Your task to perform on an android device: toggle pop-ups in chrome Image 0: 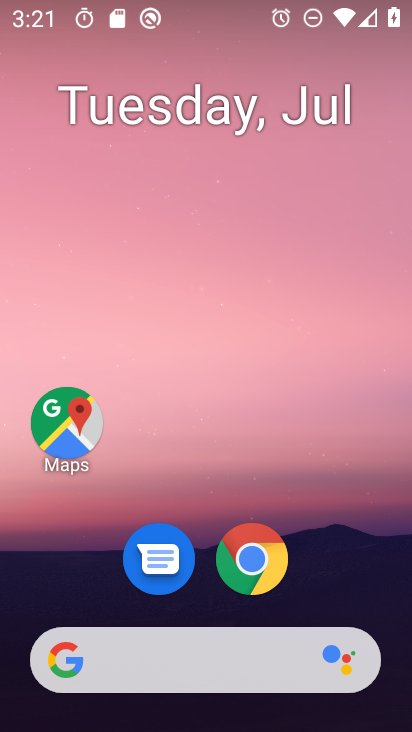
Step 0: drag from (363, 582) to (365, 146)
Your task to perform on an android device: toggle pop-ups in chrome Image 1: 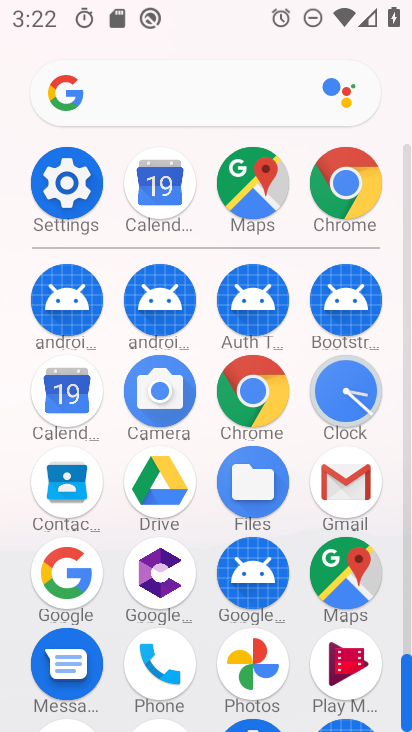
Step 1: click (271, 387)
Your task to perform on an android device: toggle pop-ups in chrome Image 2: 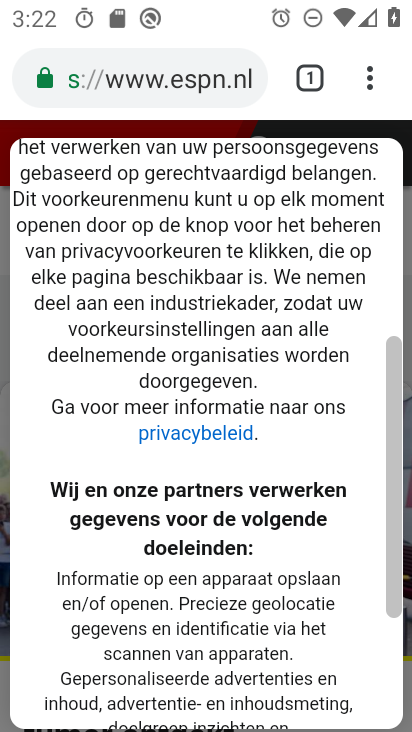
Step 2: click (370, 80)
Your task to perform on an android device: toggle pop-ups in chrome Image 3: 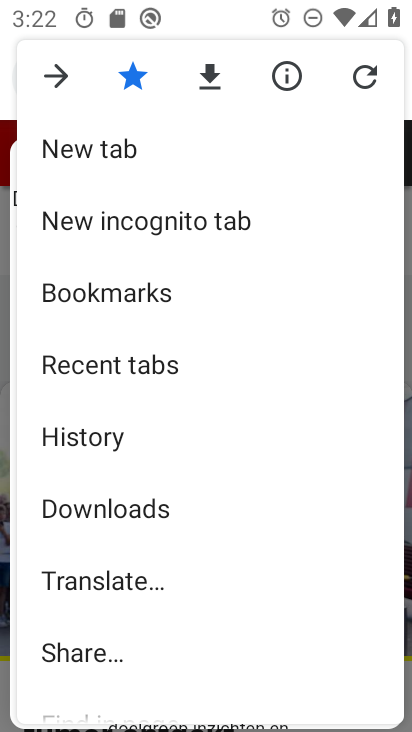
Step 3: drag from (331, 450) to (345, 376)
Your task to perform on an android device: toggle pop-ups in chrome Image 4: 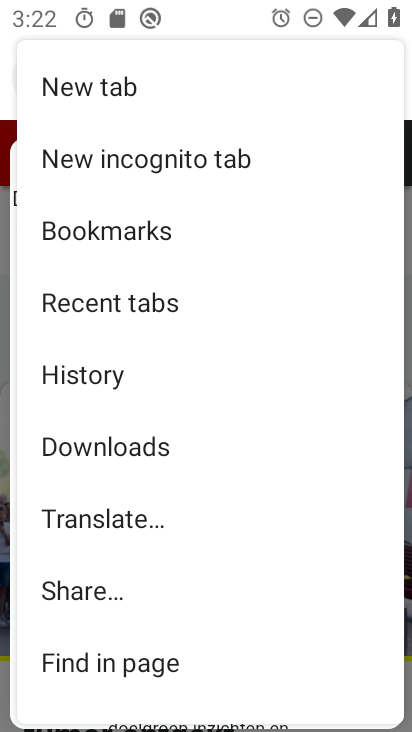
Step 4: drag from (345, 501) to (348, 428)
Your task to perform on an android device: toggle pop-ups in chrome Image 5: 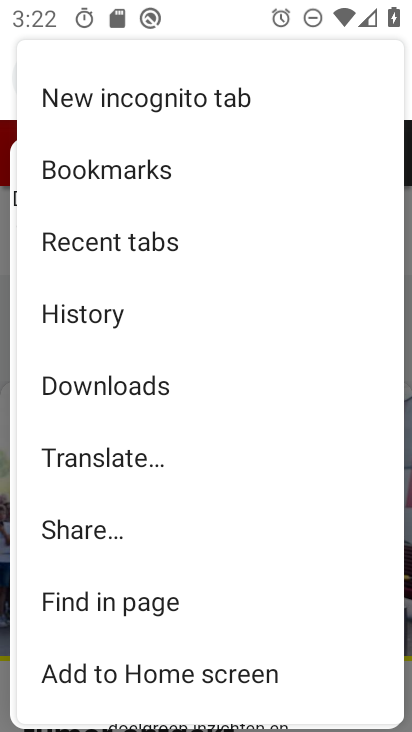
Step 5: drag from (322, 519) to (322, 431)
Your task to perform on an android device: toggle pop-ups in chrome Image 6: 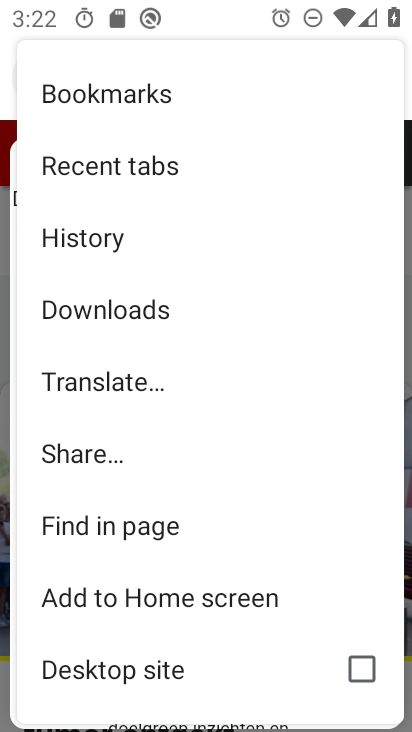
Step 6: drag from (317, 483) to (323, 391)
Your task to perform on an android device: toggle pop-ups in chrome Image 7: 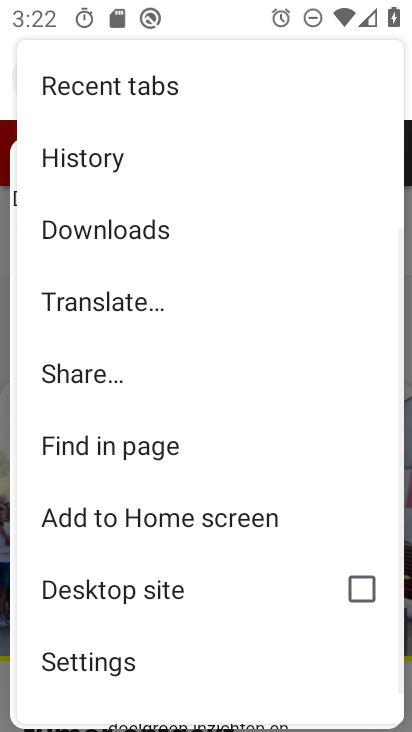
Step 7: drag from (315, 466) to (322, 375)
Your task to perform on an android device: toggle pop-ups in chrome Image 8: 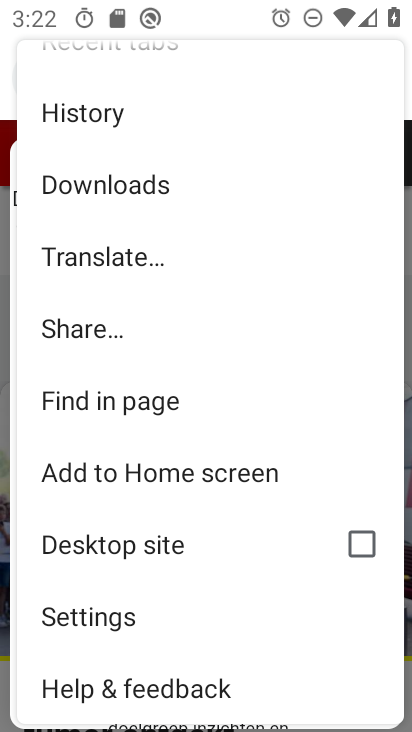
Step 8: click (246, 610)
Your task to perform on an android device: toggle pop-ups in chrome Image 9: 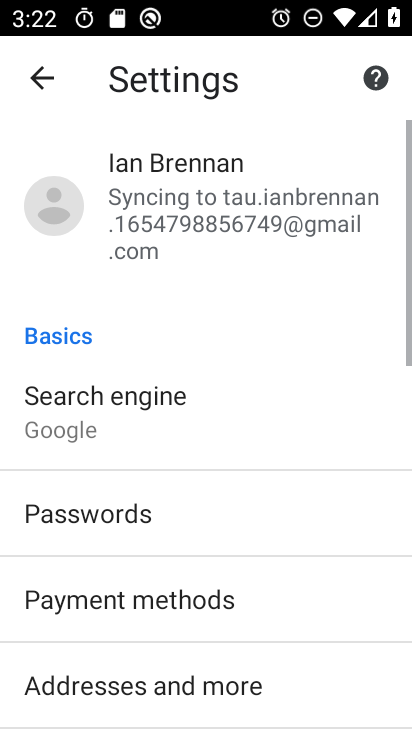
Step 9: drag from (321, 581) to (333, 482)
Your task to perform on an android device: toggle pop-ups in chrome Image 10: 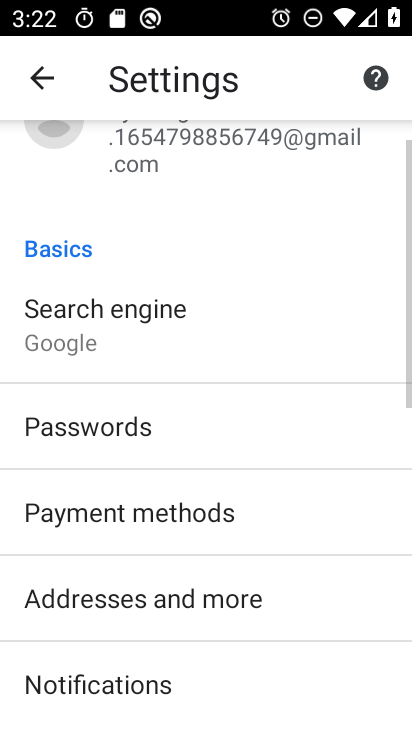
Step 10: drag from (332, 560) to (361, 390)
Your task to perform on an android device: toggle pop-ups in chrome Image 11: 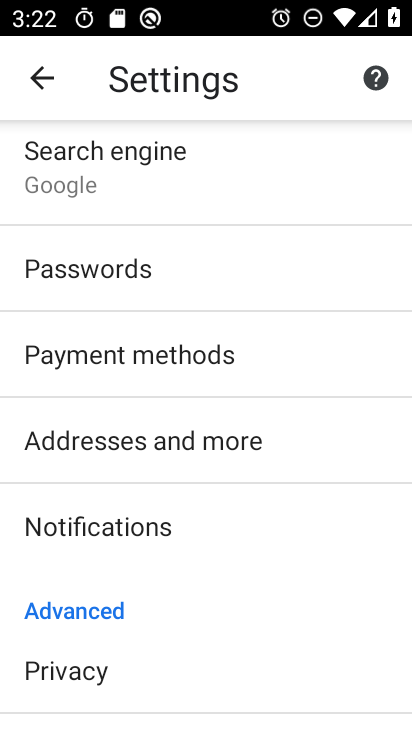
Step 11: drag from (356, 464) to (399, 166)
Your task to perform on an android device: toggle pop-ups in chrome Image 12: 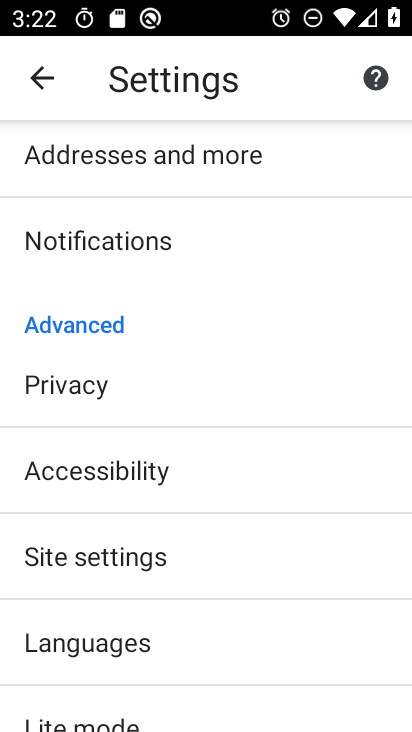
Step 12: drag from (340, 469) to (357, 252)
Your task to perform on an android device: toggle pop-ups in chrome Image 13: 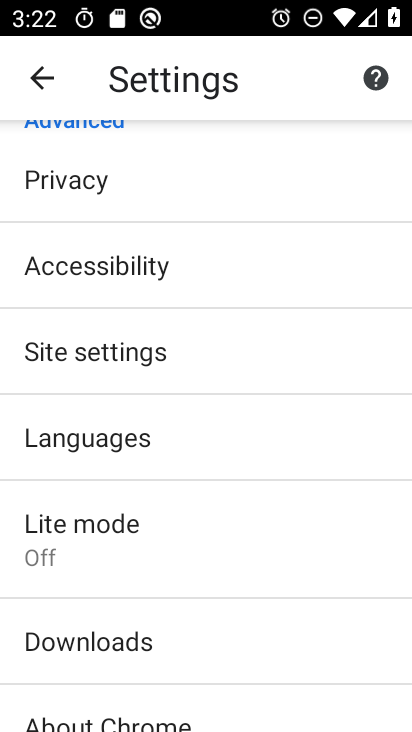
Step 13: drag from (339, 474) to (348, 218)
Your task to perform on an android device: toggle pop-ups in chrome Image 14: 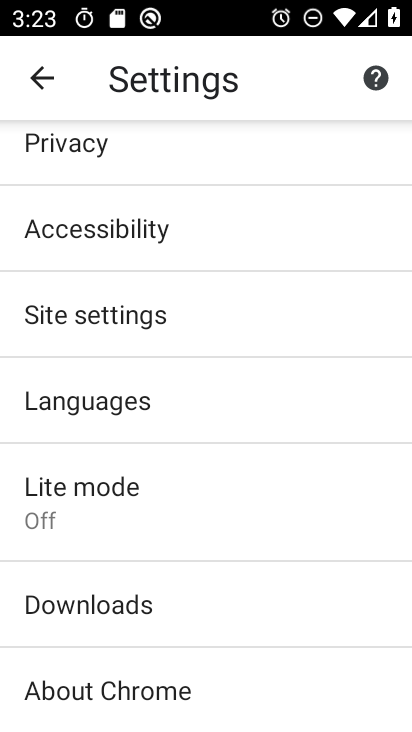
Step 14: click (255, 317)
Your task to perform on an android device: toggle pop-ups in chrome Image 15: 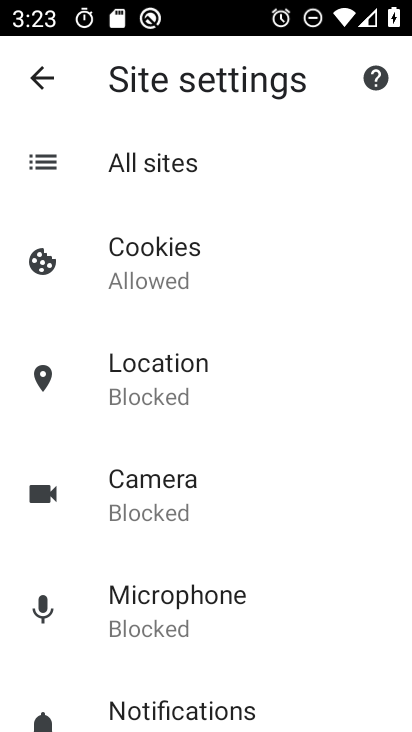
Step 15: drag from (306, 469) to (324, 322)
Your task to perform on an android device: toggle pop-ups in chrome Image 16: 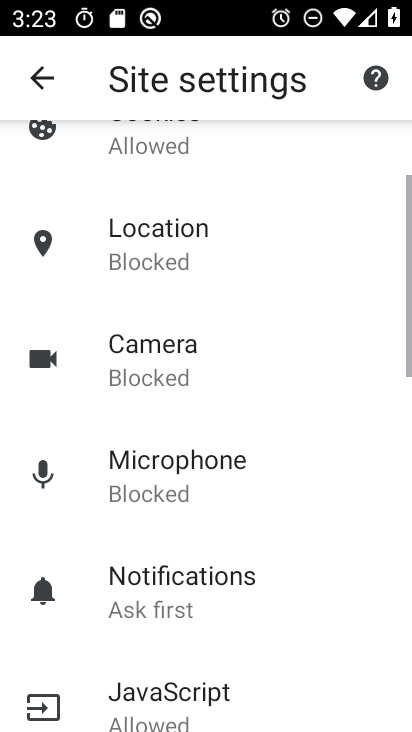
Step 16: drag from (330, 473) to (334, 384)
Your task to perform on an android device: toggle pop-ups in chrome Image 17: 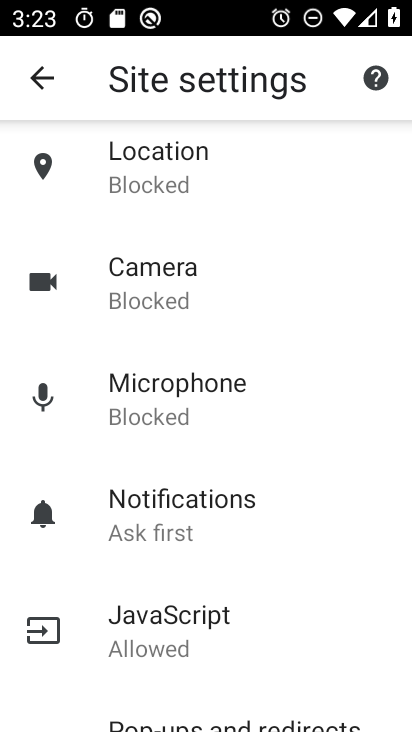
Step 17: drag from (328, 503) to (345, 334)
Your task to perform on an android device: toggle pop-ups in chrome Image 18: 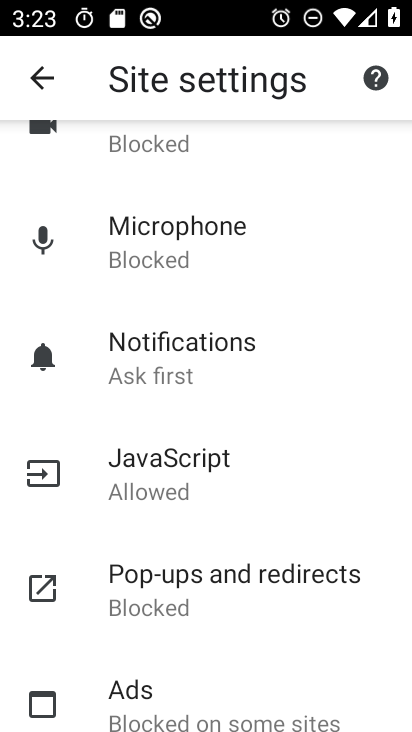
Step 18: drag from (333, 505) to (335, 355)
Your task to perform on an android device: toggle pop-ups in chrome Image 19: 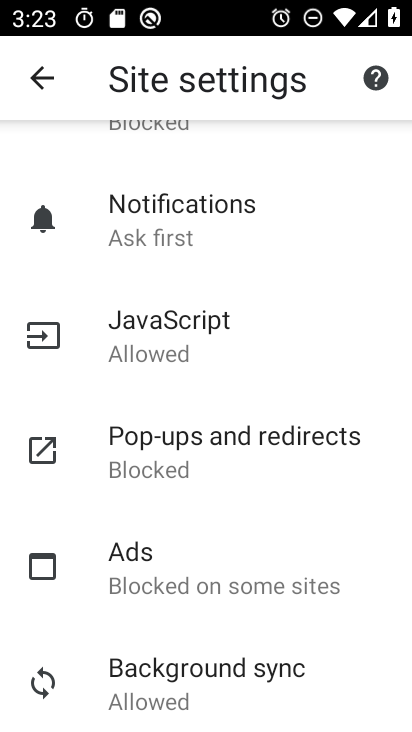
Step 19: click (339, 439)
Your task to perform on an android device: toggle pop-ups in chrome Image 20: 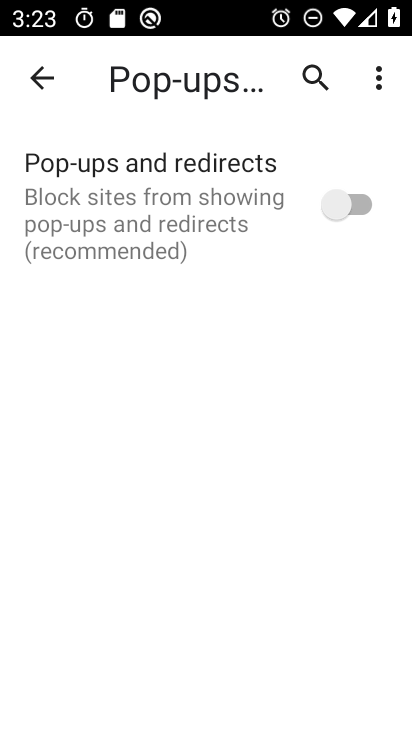
Step 20: click (346, 198)
Your task to perform on an android device: toggle pop-ups in chrome Image 21: 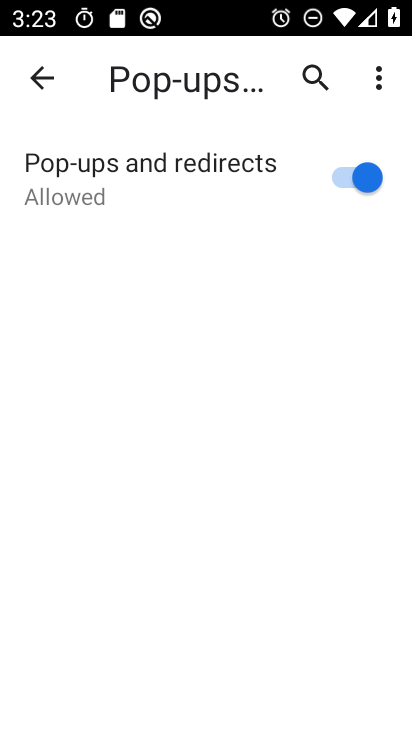
Step 21: task complete